Your task to perform on an android device: toggle improve location accuracy Image 0: 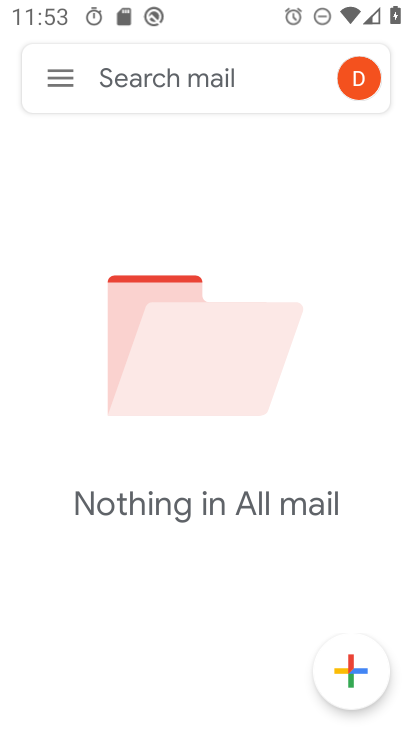
Step 0: press back button
Your task to perform on an android device: toggle improve location accuracy Image 1: 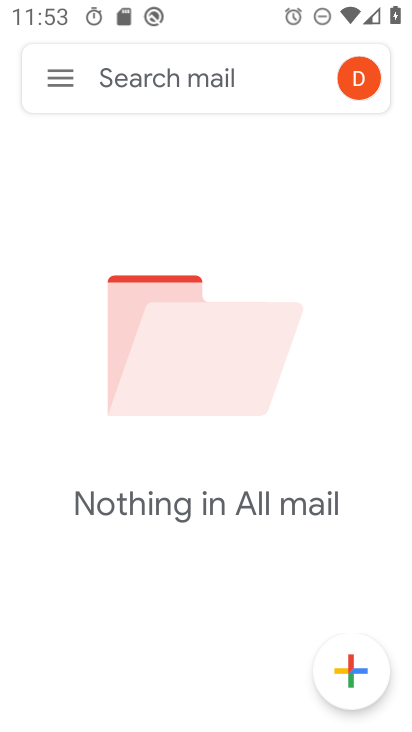
Step 1: press back button
Your task to perform on an android device: toggle improve location accuracy Image 2: 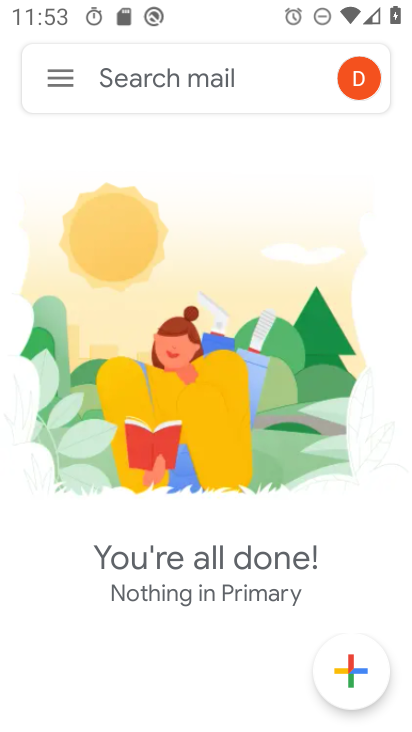
Step 2: press back button
Your task to perform on an android device: toggle improve location accuracy Image 3: 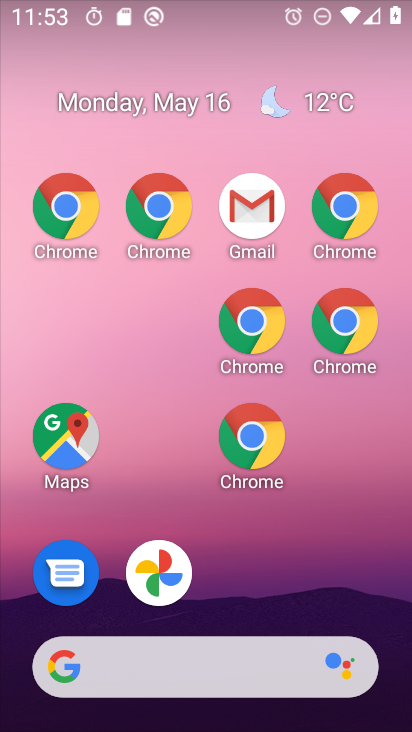
Step 3: drag from (372, 572) to (230, 100)
Your task to perform on an android device: toggle improve location accuracy Image 4: 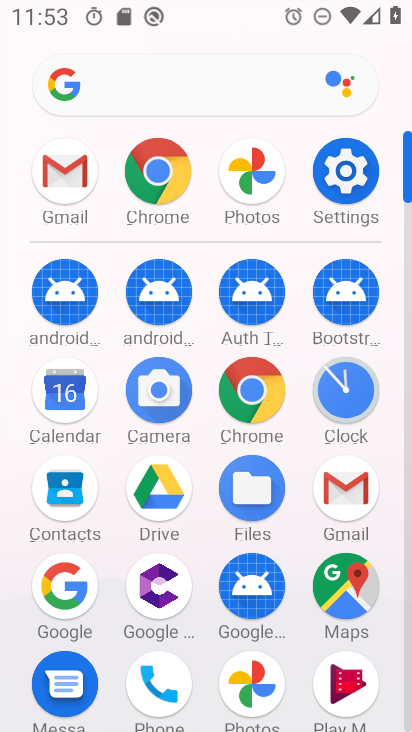
Step 4: click (356, 164)
Your task to perform on an android device: toggle improve location accuracy Image 5: 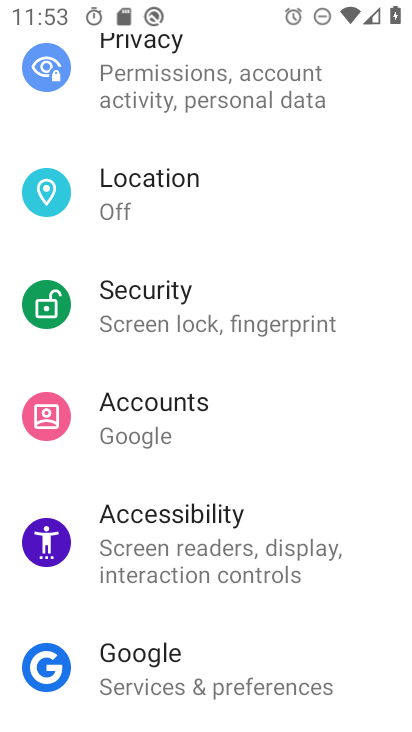
Step 5: click (133, 197)
Your task to perform on an android device: toggle improve location accuracy Image 6: 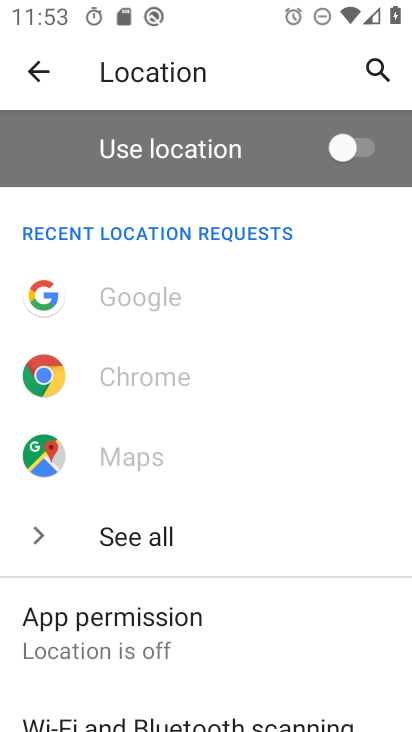
Step 6: drag from (201, 563) to (188, 60)
Your task to perform on an android device: toggle improve location accuracy Image 7: 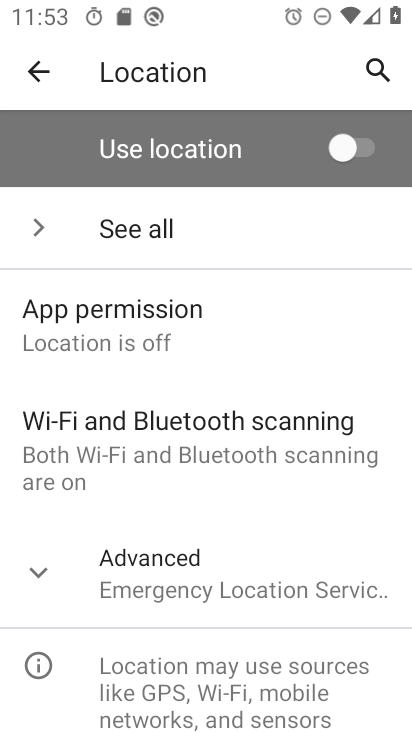
Step 7: click (151, 569)
Your task to perform on an android device: toggle improve location accuracy Image 8: 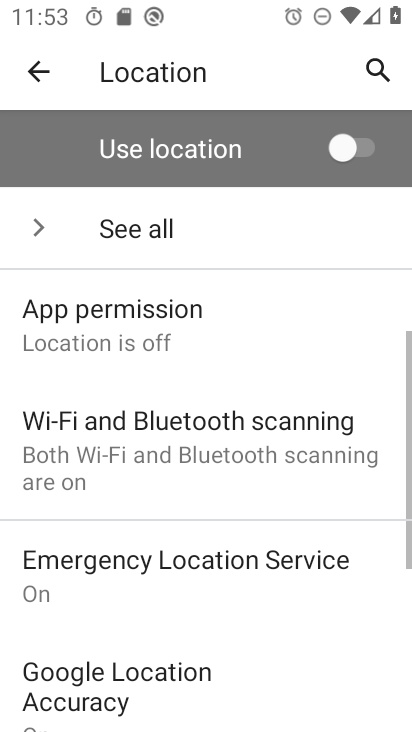
Step 8: drag from (211, 596) to (238, 31)
Your task to perform on an android device: toggle improve location accuracy Image 9: 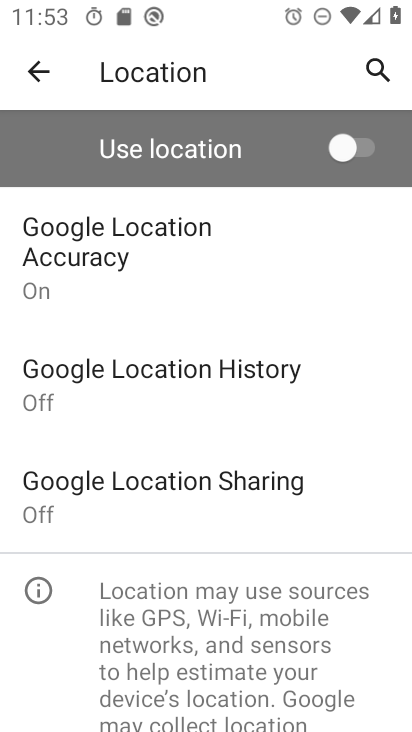
Step 9: click (94, 256)
Your task to perform on an android device: toggle improve location accuracy Image 10: 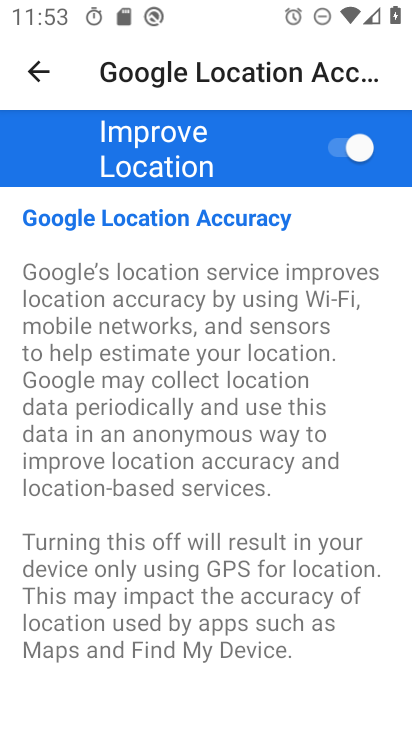
Step 10: click (344, 138)
Your task to perform on an android device: toggle improve location accuracy Image 11: 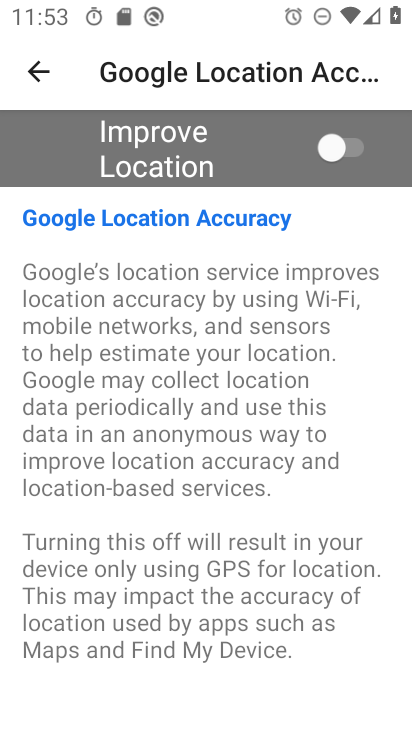
Step 11: task complete